Your task to perform on an android device: check storage Image 0: 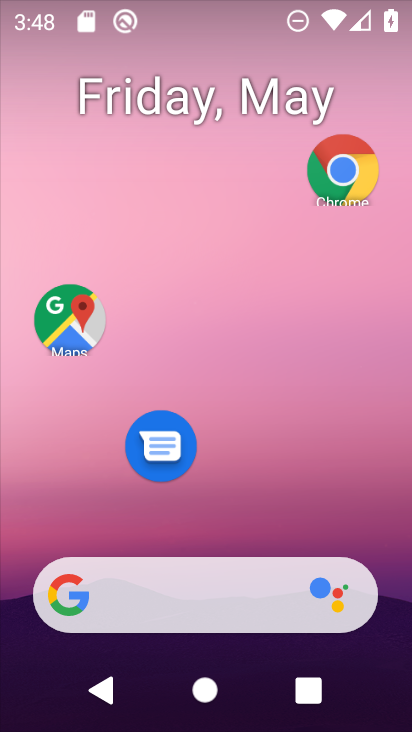
Step 0: drag from (248, 536) to (301, 68)
Your task to perform on an android device: check storage Image 1: 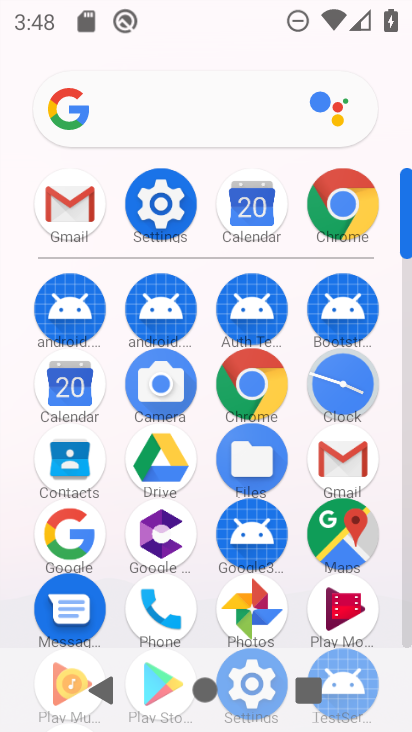
Step 1: click (167, 208)
Your task to perform on an android device: check storage Image 2: 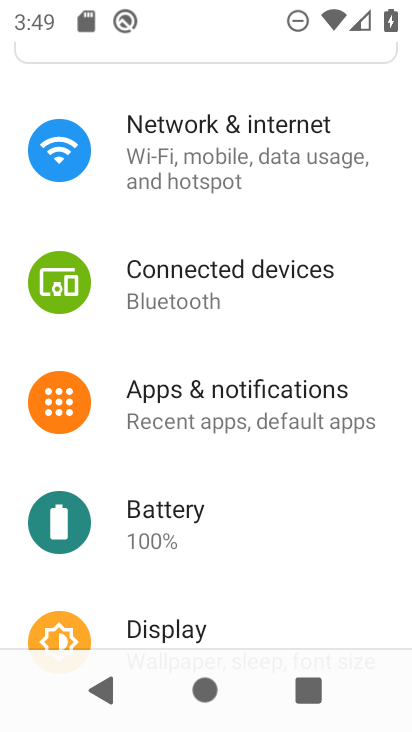
Step 2: drag from (294, 524) to (339, 148)
Your task to perform on an android device: check storage Image 3: 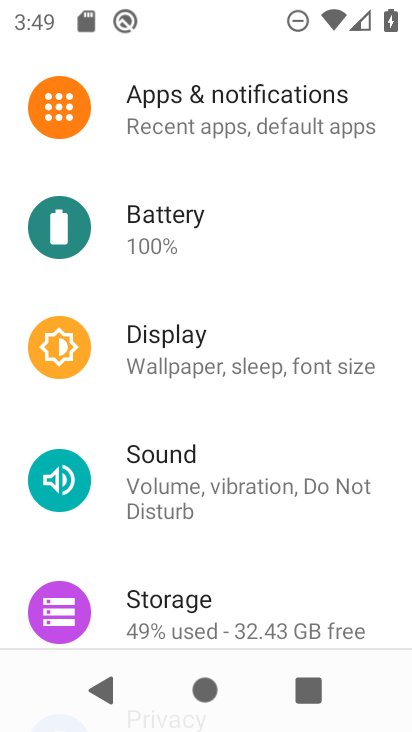
Step 3: click (162, 605)
Your task to perform on an android device: check storage Image 4: 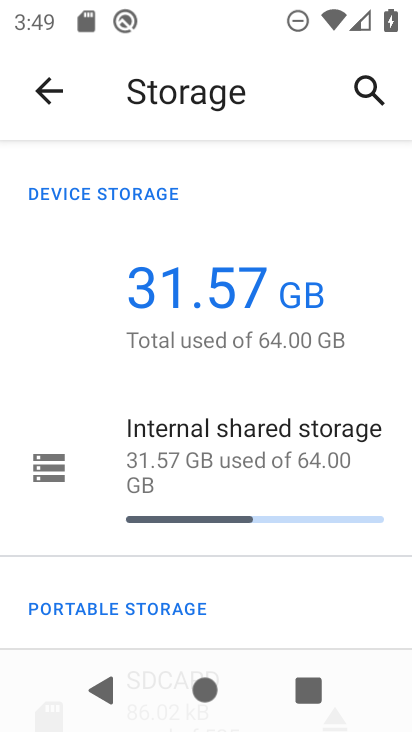
Step 4: task complete